Your task to perform on an android device: visit the assistant section in the google photos Image 0: 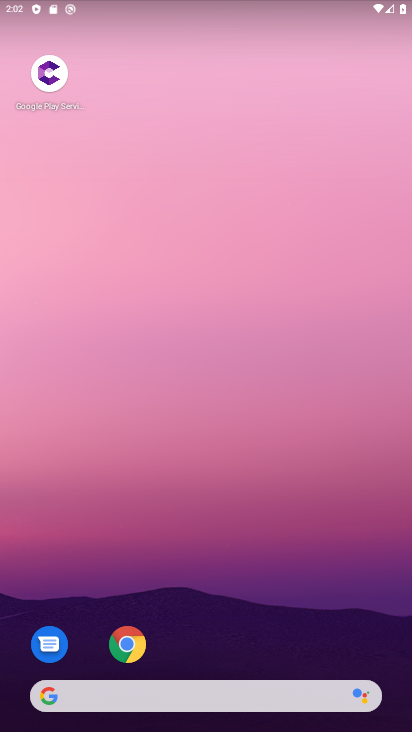
Step 0: drag from (189, 649) to (276, 132)
Your task to perform on an android device: visit the assistant section in the google photos Image 1: 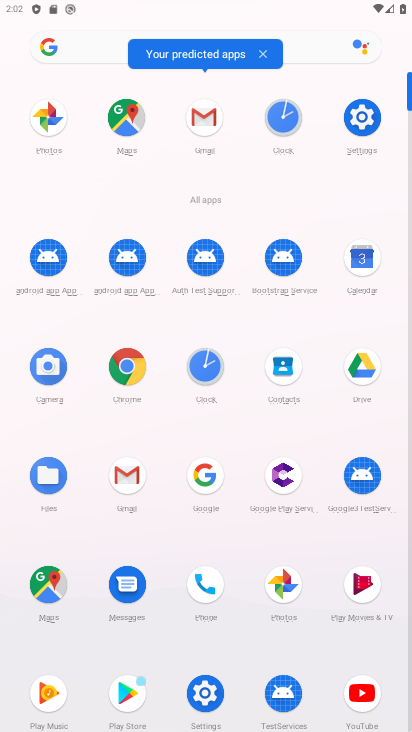
Step 1: click (290, 594)
Your task to perform on an android device: visit the assistant section in the google photos Image 2: 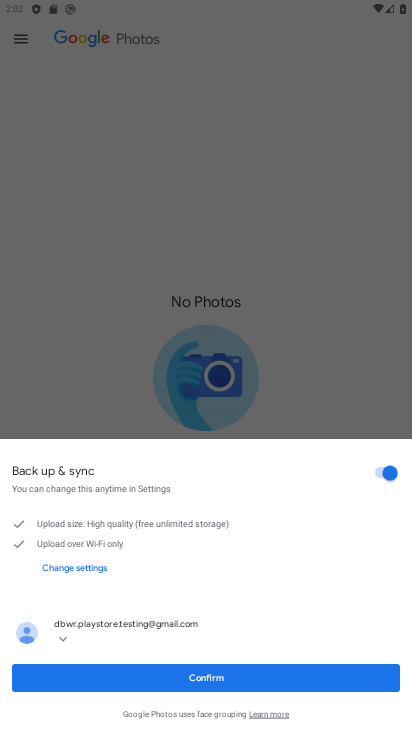
Step 2: click (198, 684)
Your task to perform on an android device: visit the assistant section in the google photos Image 3: 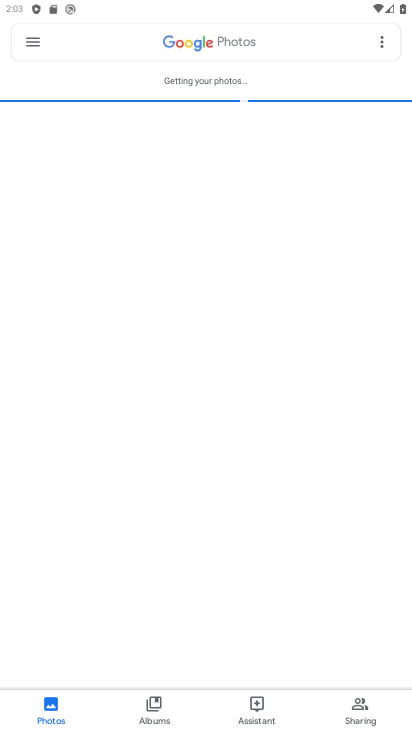
Step 3: click (258, 713)
Your task to perform on an android device: visit the assistant section in the google photos Image 4: 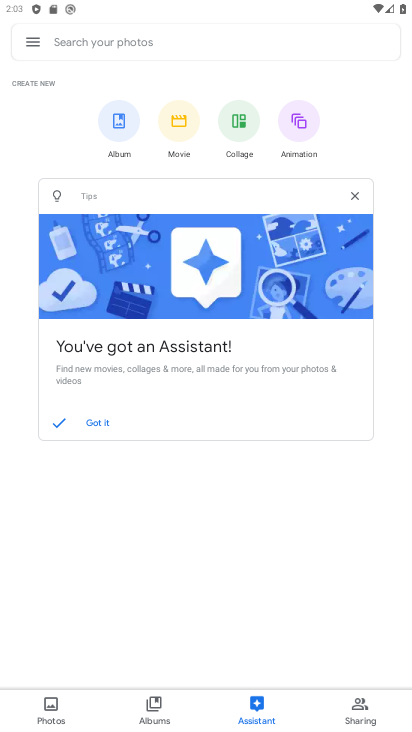
Step 4: task complete